Your task to perform on an android device: turn off location history Image 0: 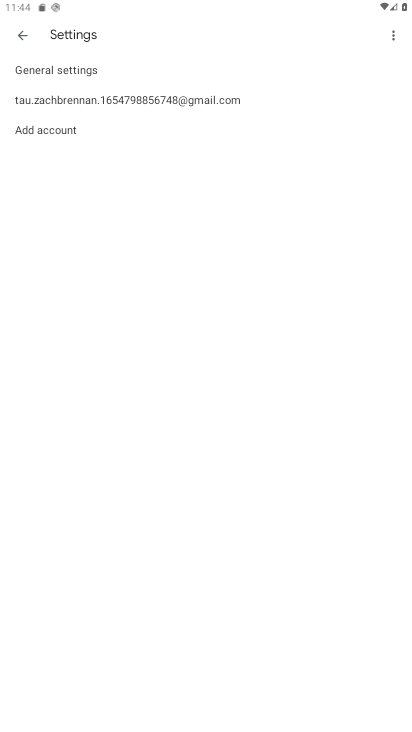
Step 0: click (367, 382)
Your task to perform on an android device: turn off location history Image 1: 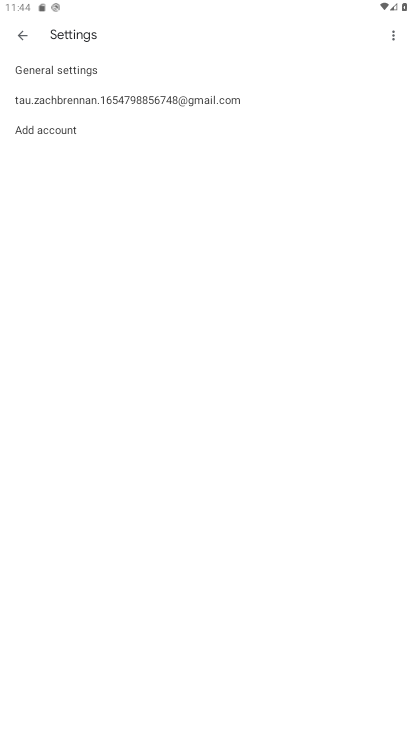
Step 1: drag from (217, 591) to (239, 165)
Your task to perform on an android device: turn off location history Image 2: 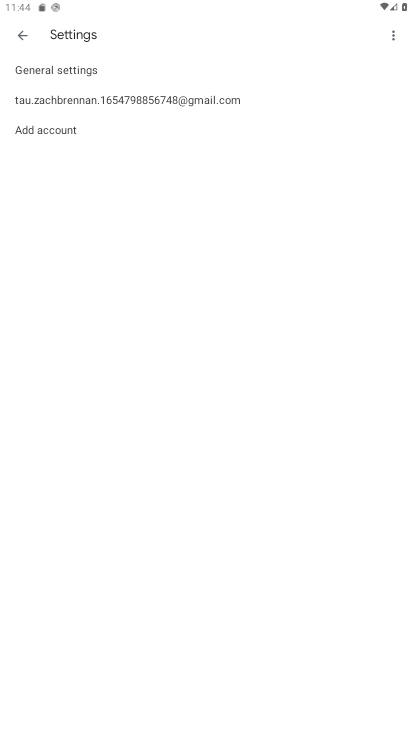
Step 2: press home button
Your task to perform on an android device: turn off location history Image 3: 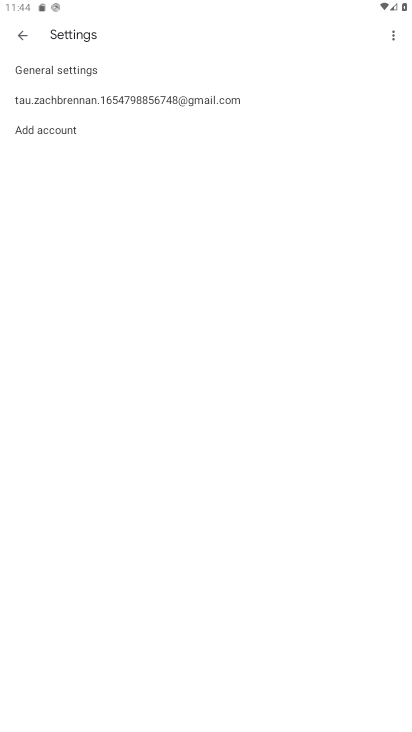
Step 3: press home button
Your task to perform on an android device: turn off location history Image 4: 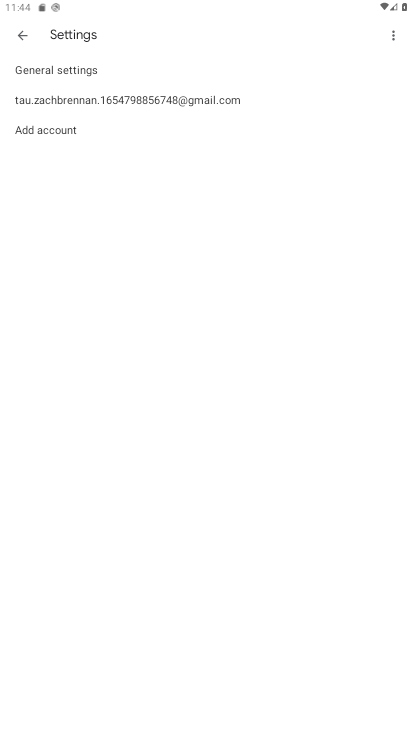
Step 4: click (271, 195)
Your task to perform on an android device: turn off location history Image 5: 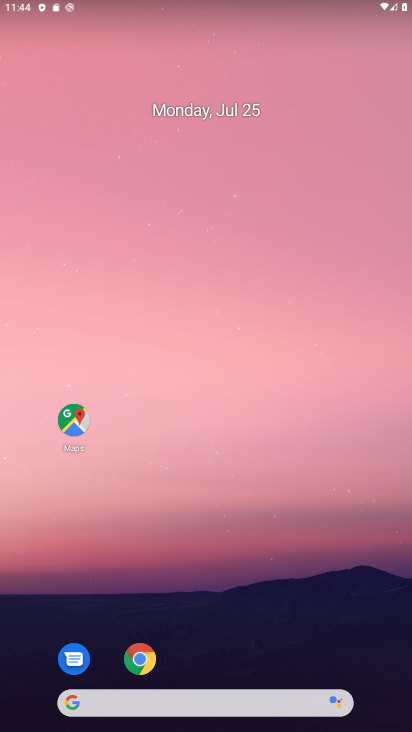
Step 5: drag from (202, 636) to (276, 27)
Your task to perform on an android device: turn off location history Image 6: 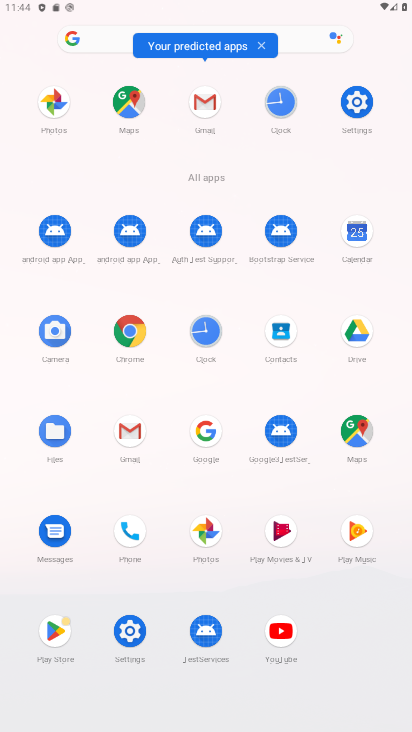
Step 6: drag from (169, 606) to (224, 285)
Your task to perform on an android device: turn off location history Image 7: 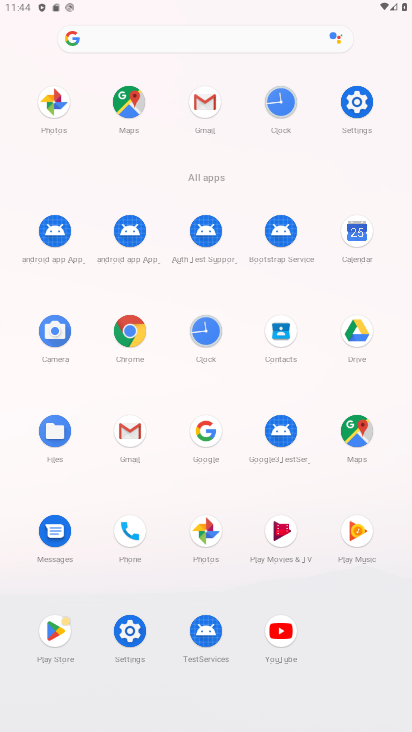
Step 7: click (355, 106)
Your task to perform on an android device: turn off location history Image 8: 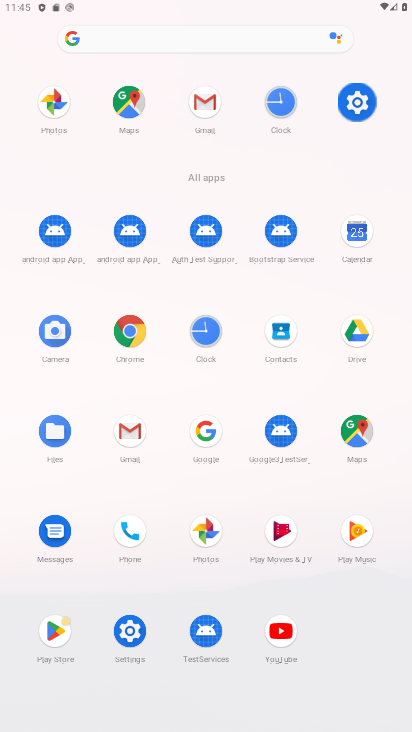
Step 8: click (355, 106)
Your task to perform on an android device: turn off location history Image 9: 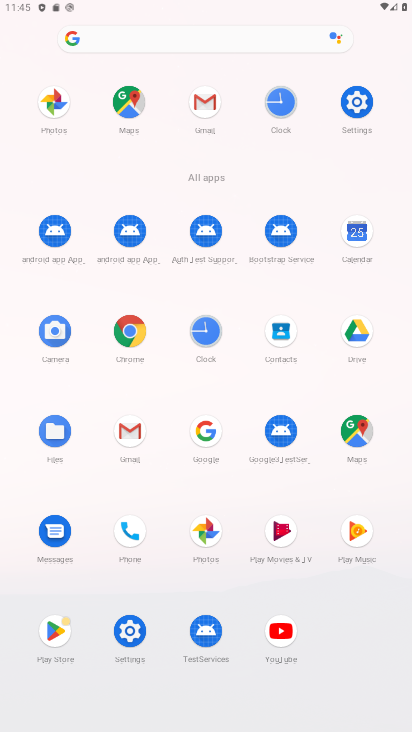
Step 9: click (352, 97)
Your task to perform on an android device: turn off location history Image 10: 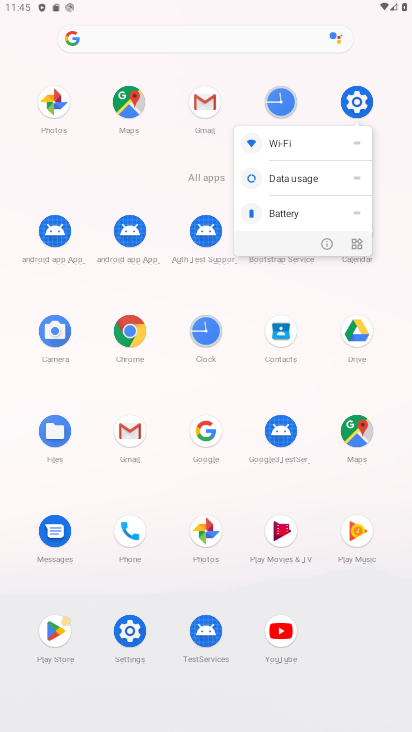
Step 10: click (320, 240)
Your task to perform on an android device: turn off location history Image 11: 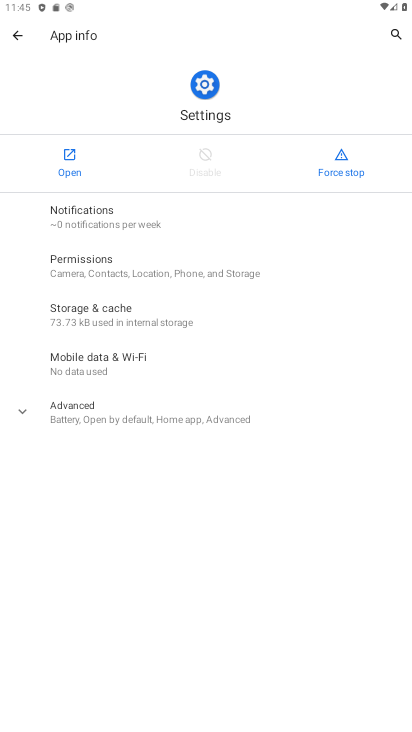
Step 11: click (62, 155)
Your task to perform on an android device: turn off location history Image 12: 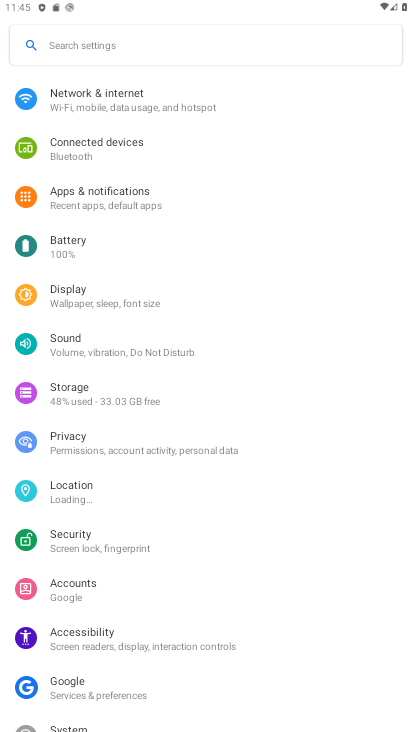
Step 12: drag from (133, 570) to (204, 318)
Your task to perform on an android device: turn off location history Image 13: 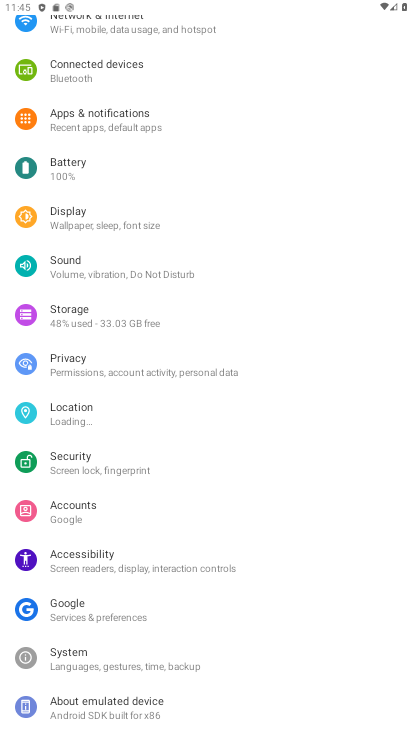
Step 13: click (67, 415)
Your task to perform on an android device: turn off location history Image 14: 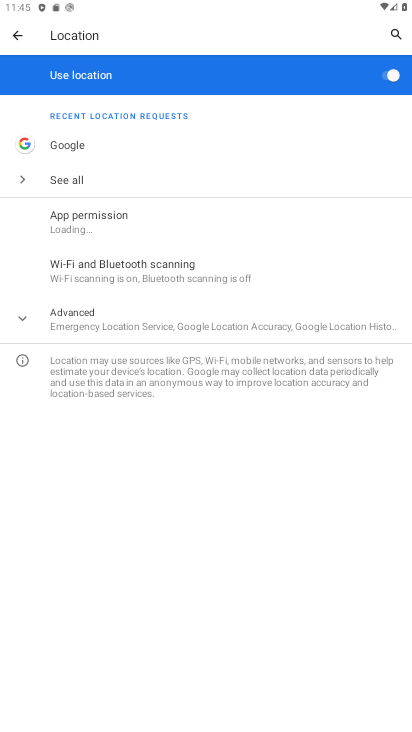
Step 14: click (79, 320)
Your task to perform on an android device: turn off location history Image 15: 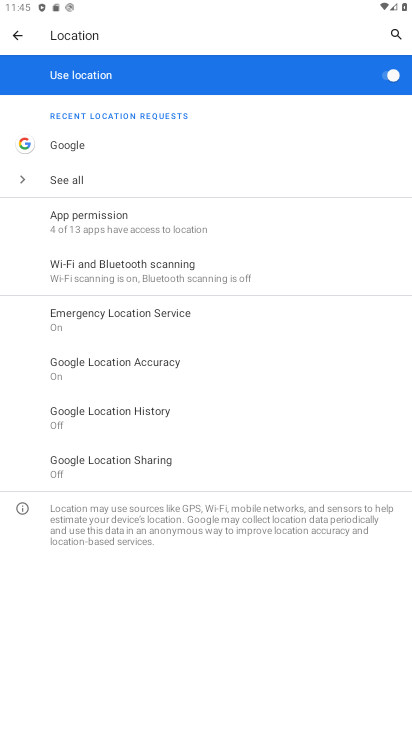
Step 15: click (130, 412)
Your task to perform on an android device: turn off location history Image 16: 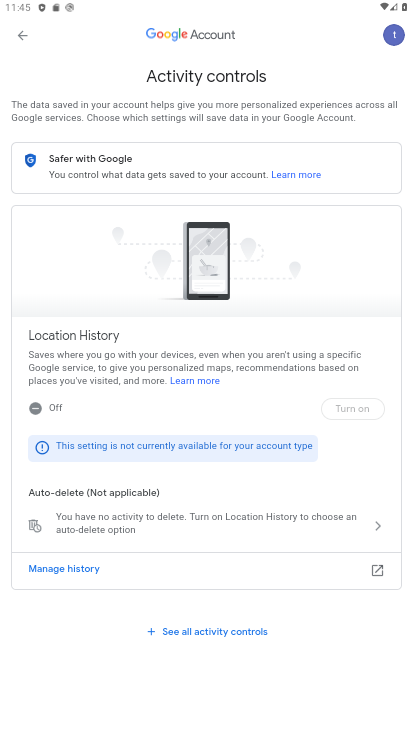
Step 16: drag from (180, 486) to (295, 221)
Your task to perform on an android device: turn off location history Image 17: 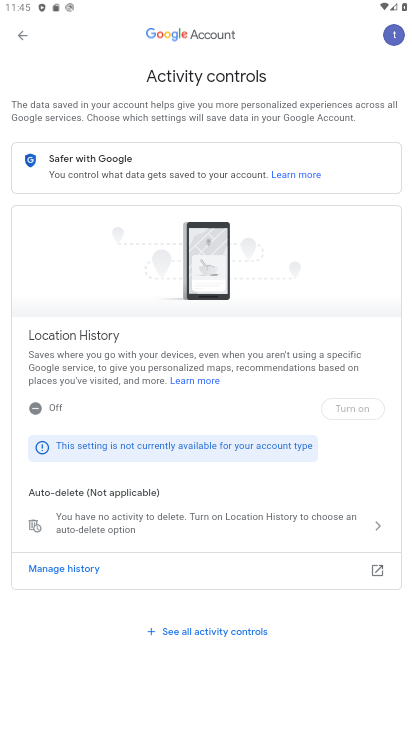
Step 17: click (348, 405)
Your task to perform on an android device: turn off location history Image 18: 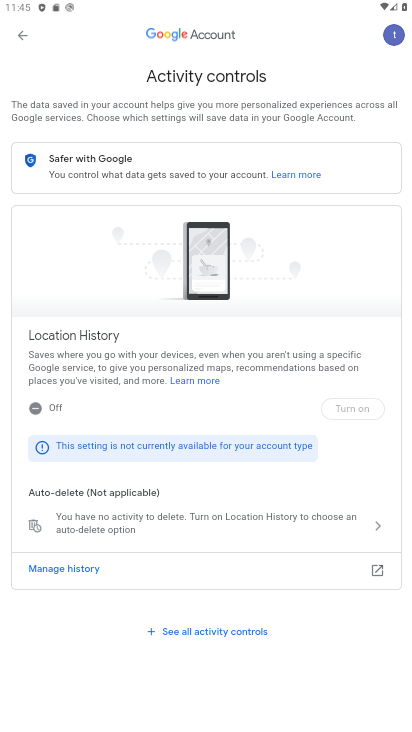
Step 18: task complete